Your task to perform on an android device: Show me recent news Image 0: 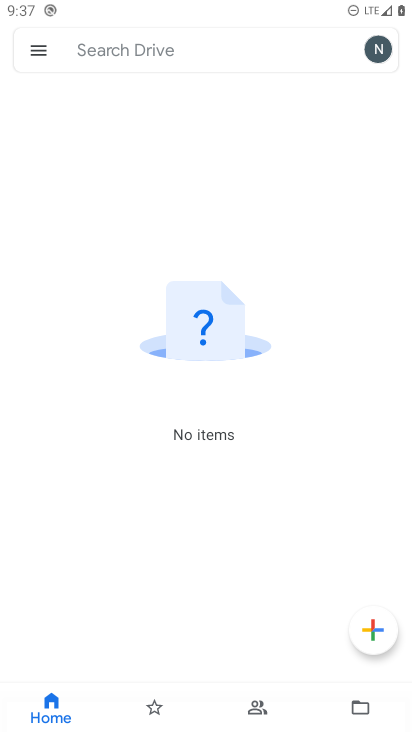
Step 0: press home button
Your task to perform on an android device: Show me recent news Image 1: 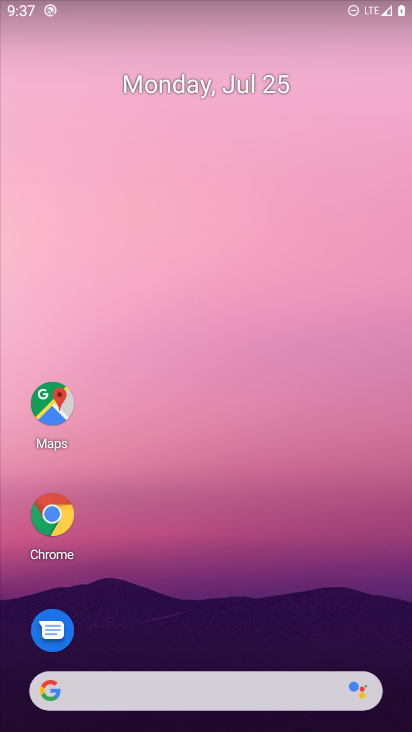
Step 1: click (113, 672)
Your task to perform on an android device: Show me recent news Image 2: 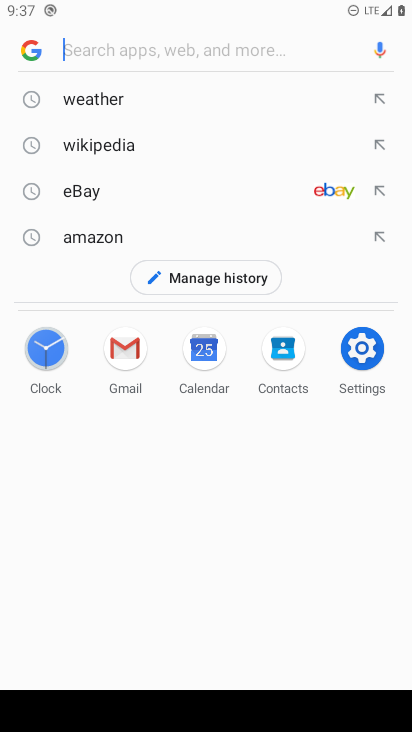
Step 2: type " recent news"
Your task to perform on an android device: Show me recent news Image 3: 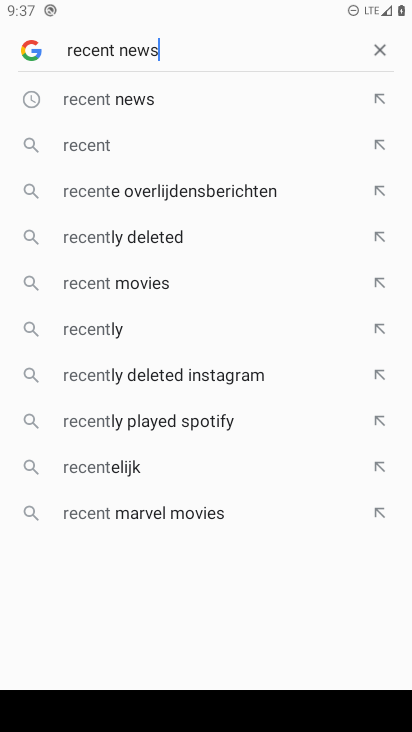
Step 3: type ""
Your task to perform on an android device: Show me recent news Image 4: 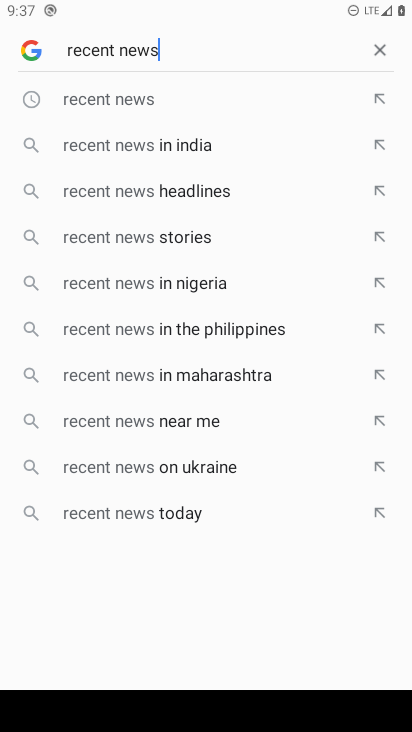
Step 4: click (101, 106)
Your task to perform on an android device: Show me recent news Image 5: 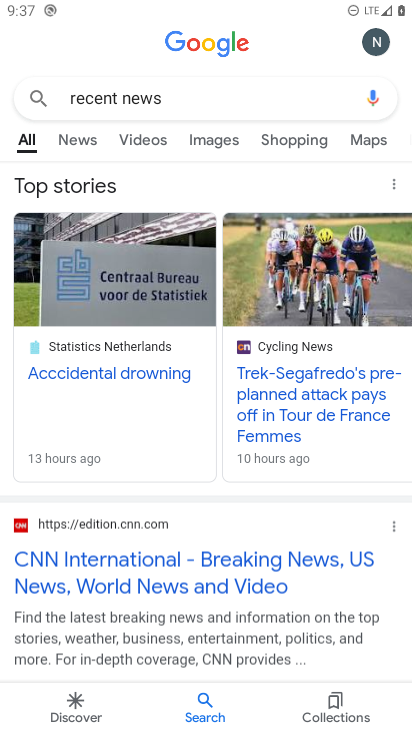
Step 5: task complete